Your task to perform on an android device: Clear the cart on costco. Search for razer naga on costco, select the first entry, add it to the cart, then select checkout. Image 0: 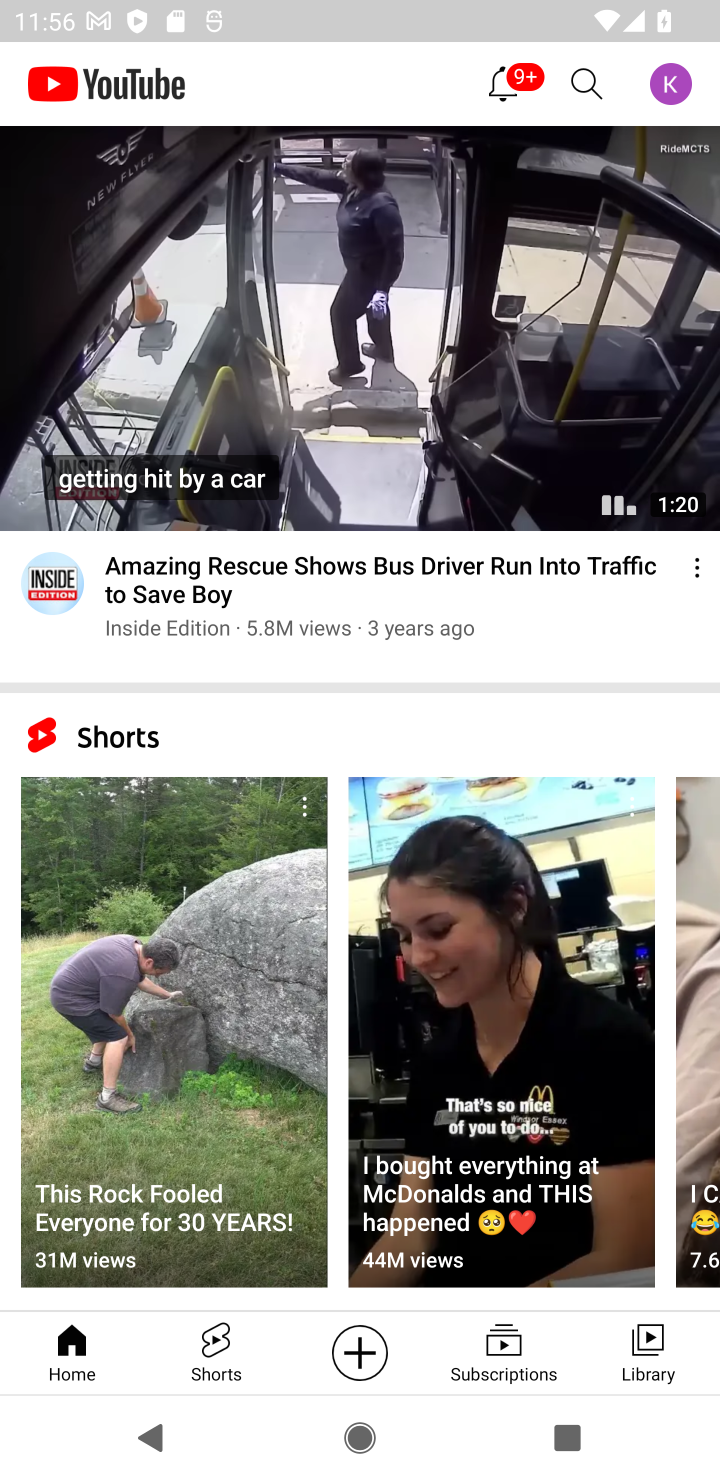
Step 0: press home button
Your task to perform on an android device: Clear the cart on costco. Search for razer naga on costco, select the first entry, add it to the cart, then select checkout. Image 1: 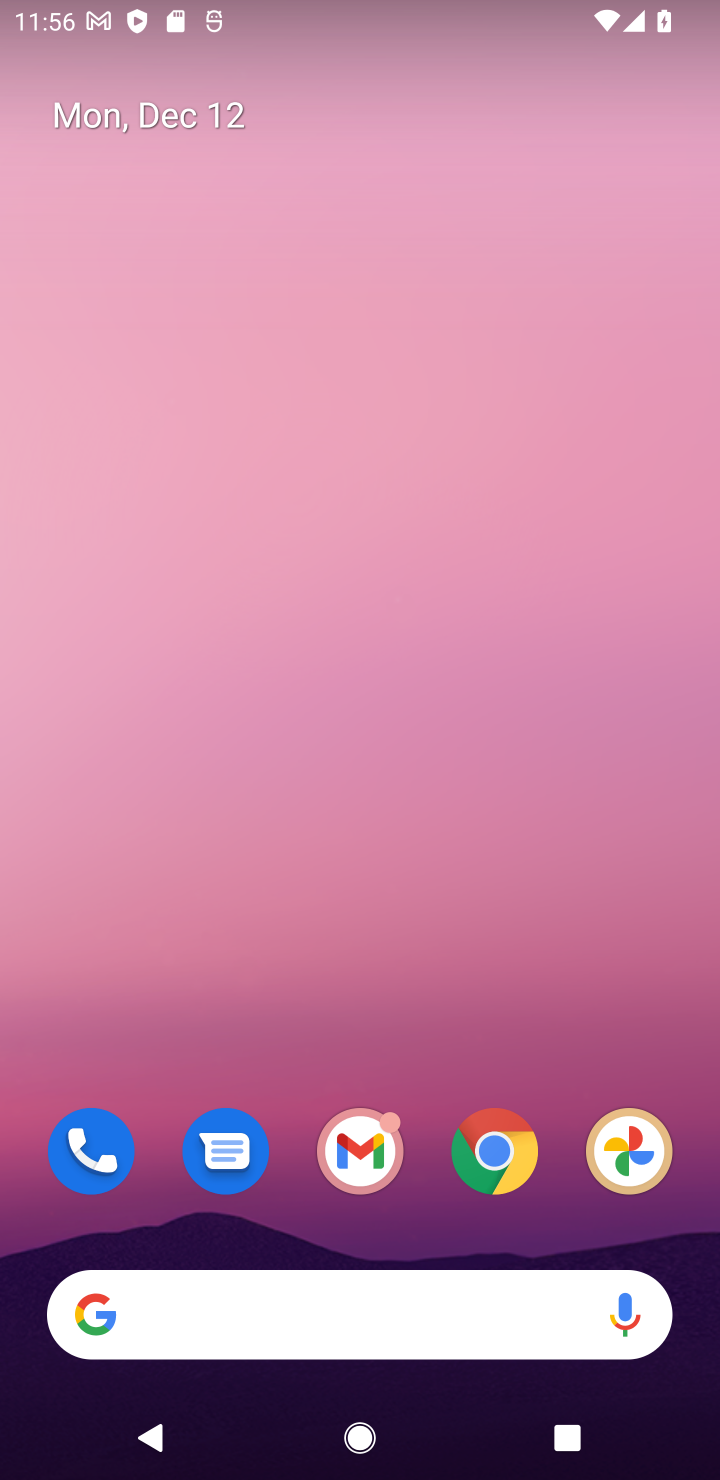
Step 1: drag from (352, 1289) to (384, 17)
Your task to perform on an android device: Clear the cart on costco. Search for razer naga on costco, select the first entry, add it to the cart, then select checkout. Image 2: 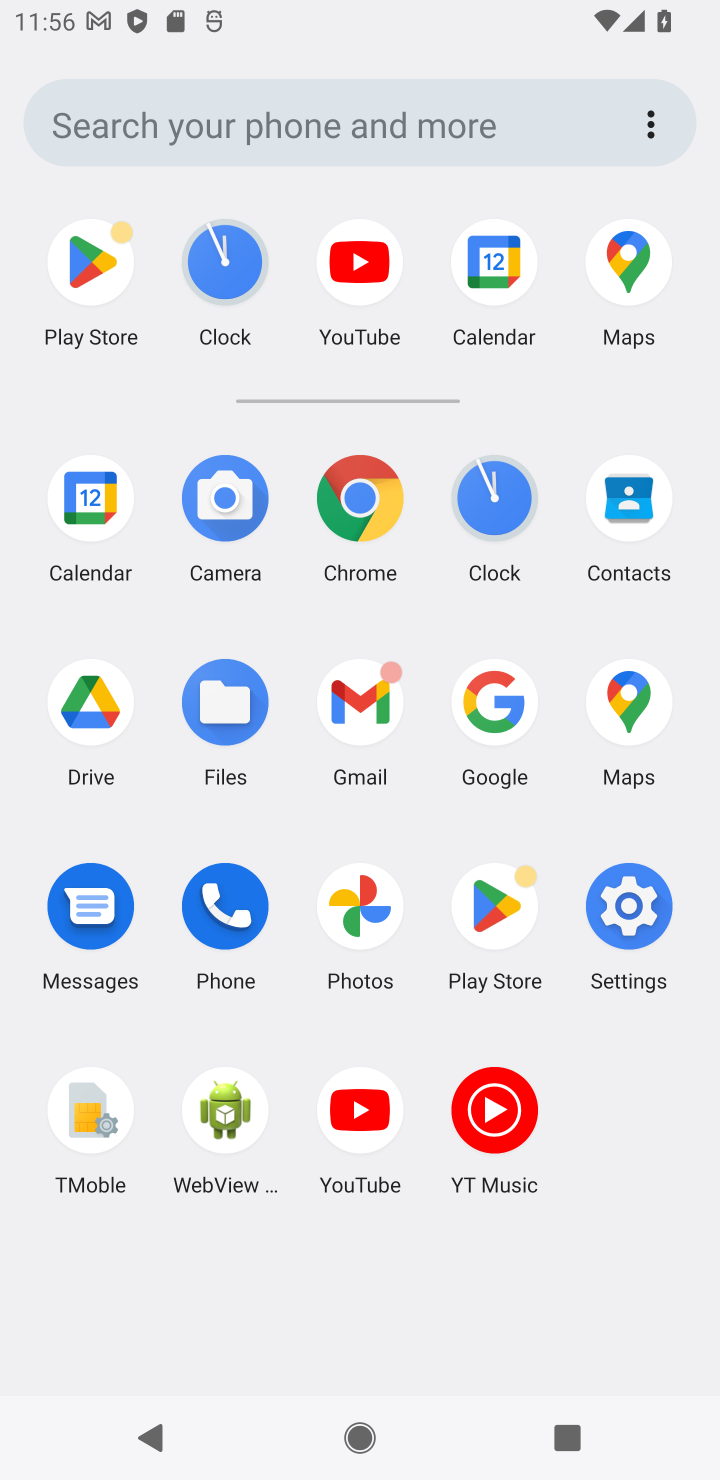
Step 2: click (492, 694)
Your task to perform on an android device: Clear the cart on costco. Search for razer naga on costco, select the first entry, add it to the cart, then select checkout. Image 3: 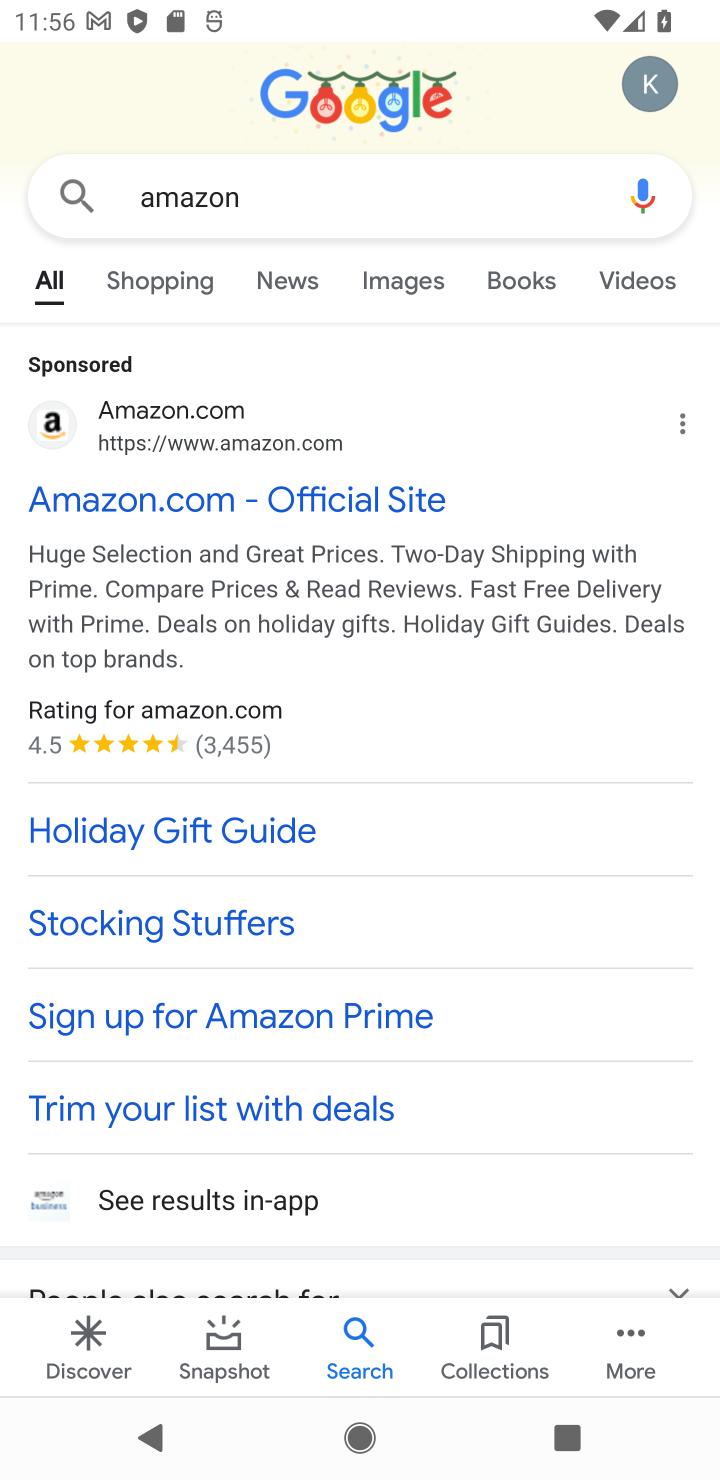
Step 3: click (201, 204)
Your task to perform on an android device: Clear the cart on costco. Search for razer naga on costco, select the first entry, add it to the cart, then select checkout. Image 4: 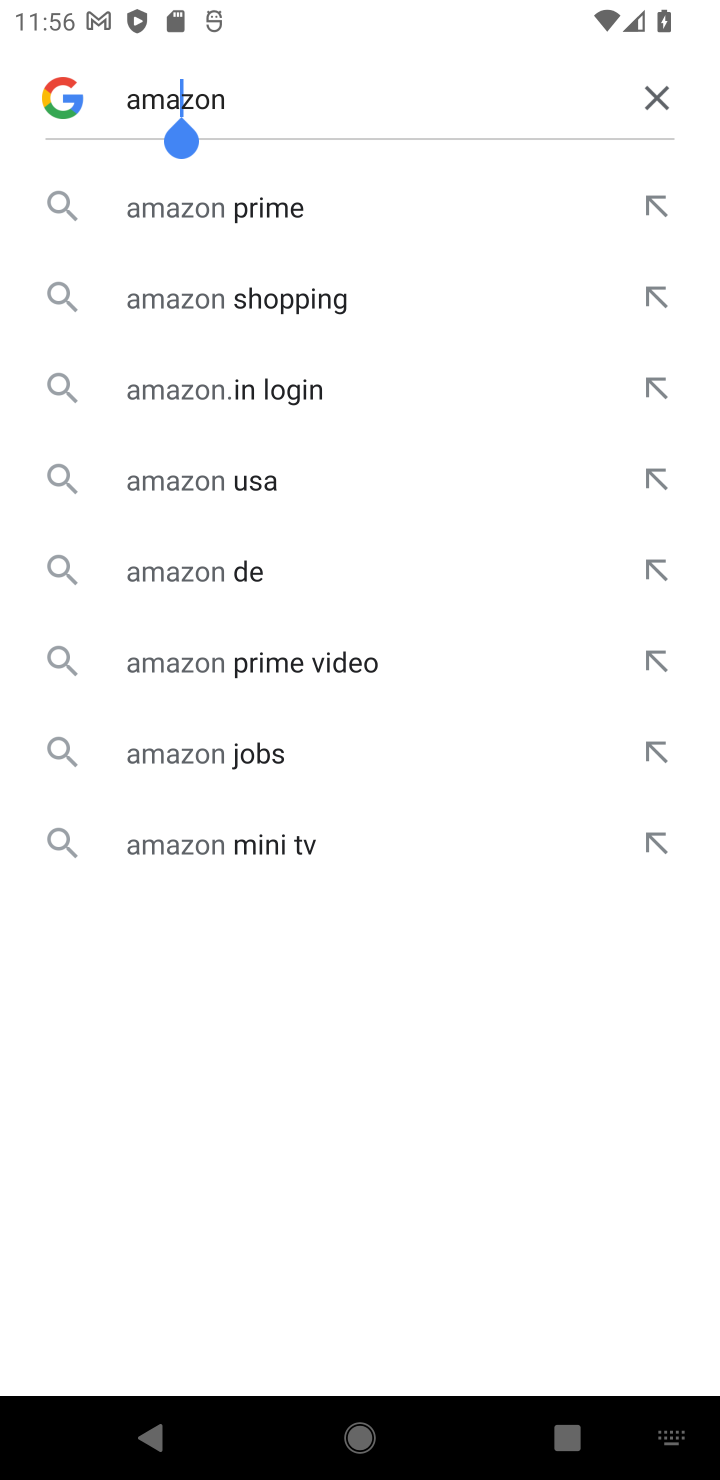
Step 4: click (655, 90)
Your task to perform on an android device: Clear the cart on costco. Search for razer naga on costco, select the first entry, add it to the cart, then select checkout. Image 5: 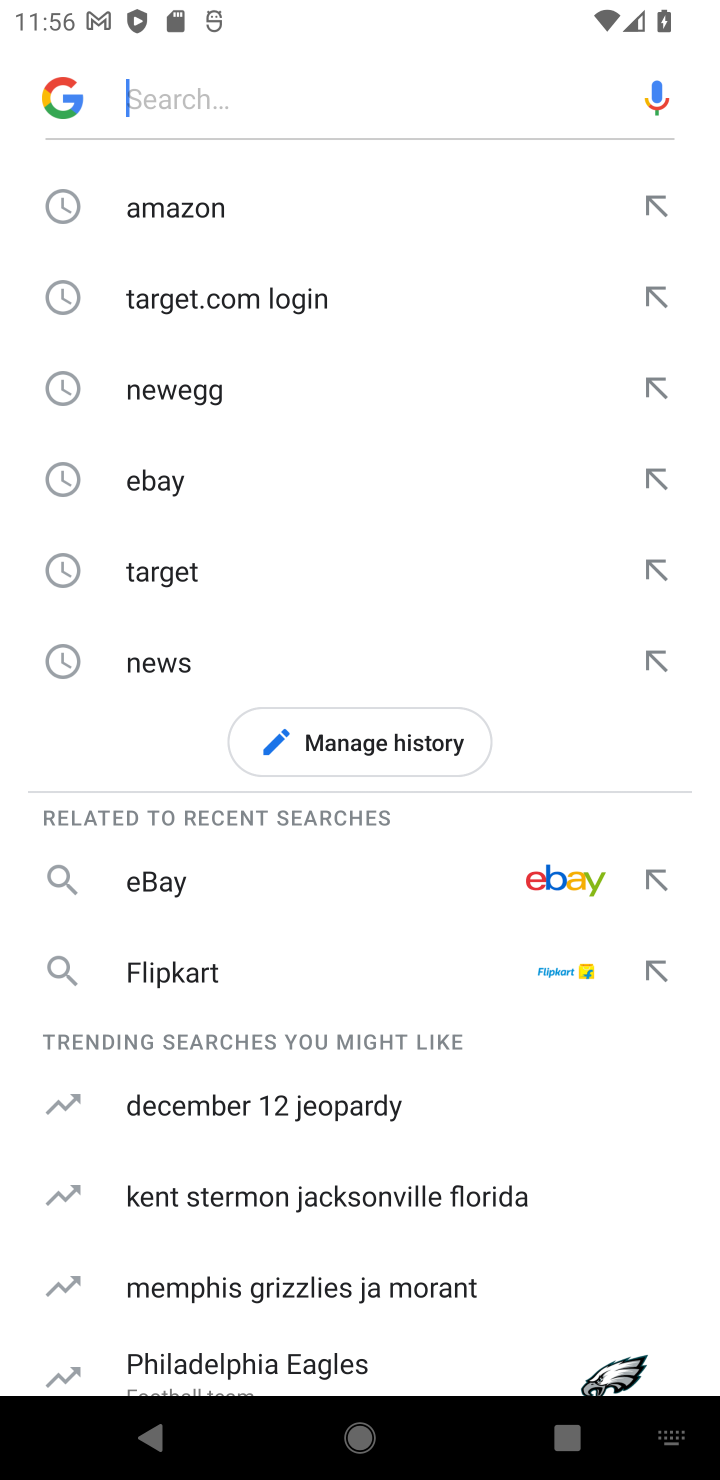
Step 5: drag from (194, 964) to (216, 429)
Your task to perform on an android device: Clear the cart on costco. Search for razer naga on costco, select the first entry, add it to the cart, then select checkout. Image 6: 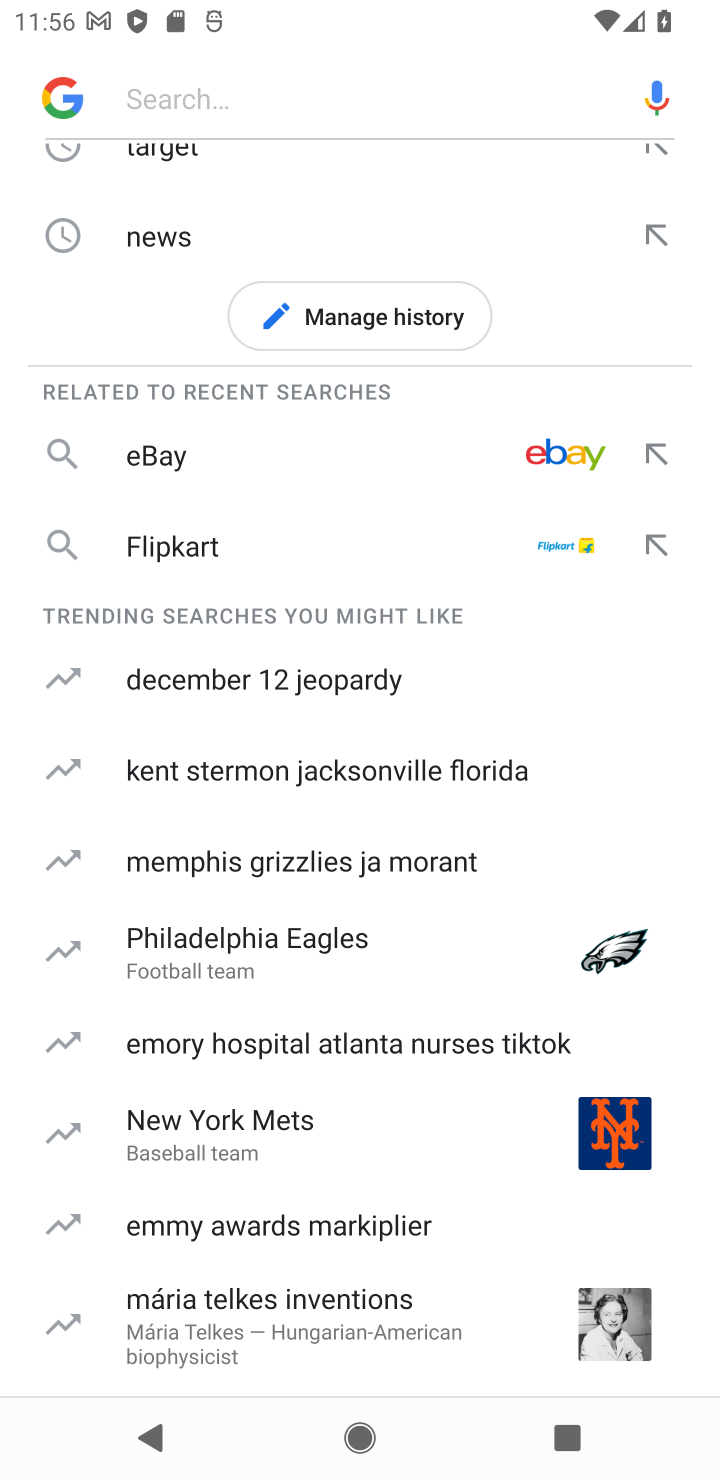
Step 6: drag from (280, 1254) to (357, 429)
Your task to perform on an android device: Clear the cart on costco. Search for razer naga on costco, select the first entry, add it to the cart, then select checkout. Image 7: 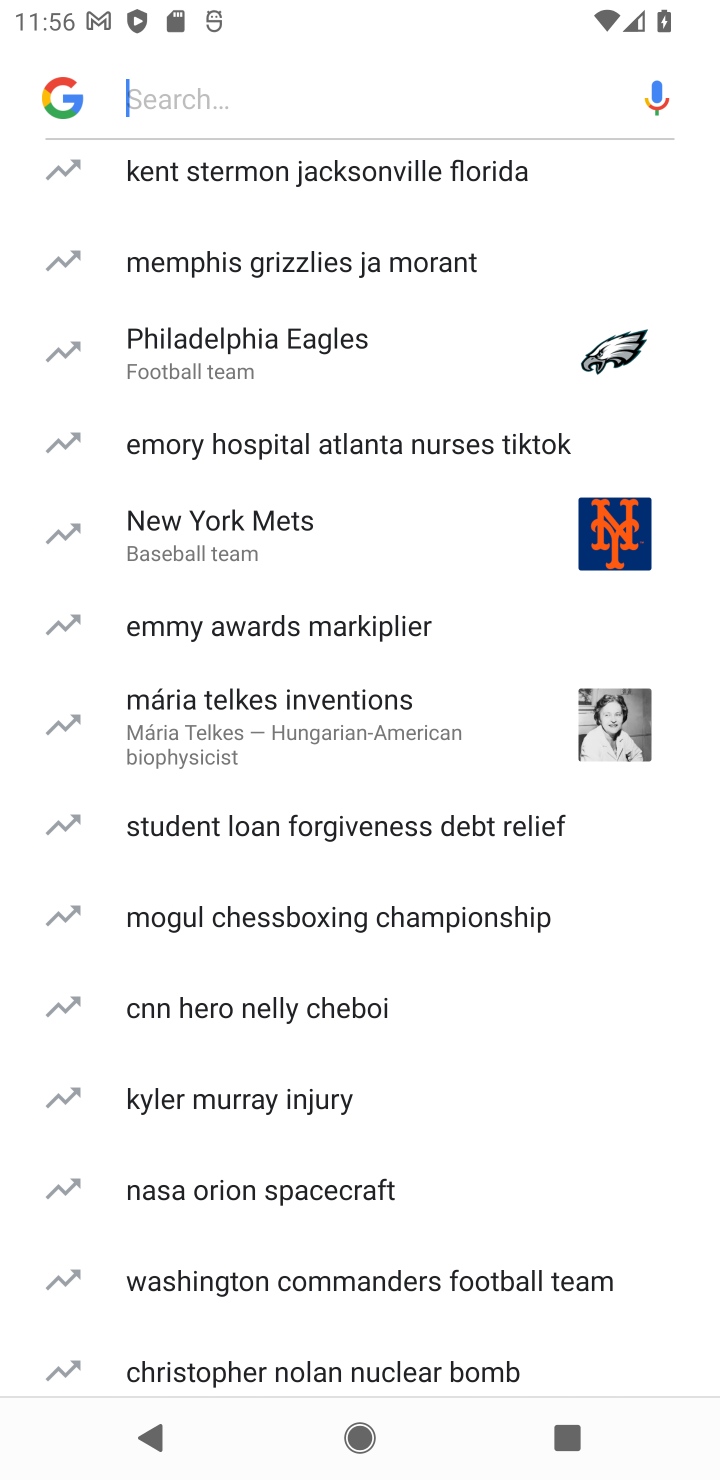
Step 7: drag from (331, 392) to (255, 1250)
Your task to perform on an android device: Clear the cart on costco. Search for razer naga on costco, select the first entry, add it to the cart, then select checkout. Image 8: 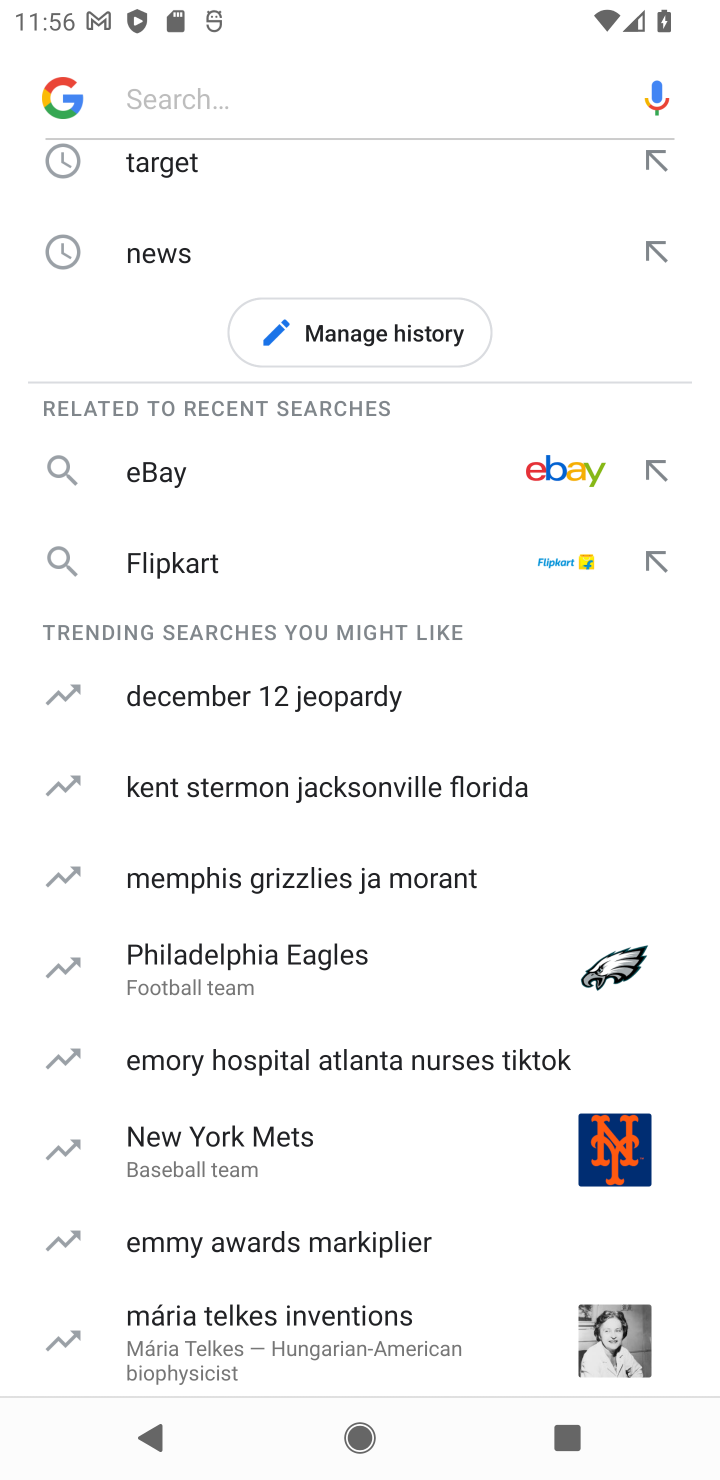
Step 8: drag from (312, 220) to (271, 1140)
Your task to perform on an android device: Clear the cart on costco. Search for razer naga on costco, select the first entry, add it to the cart, then select checkout. Image 9: 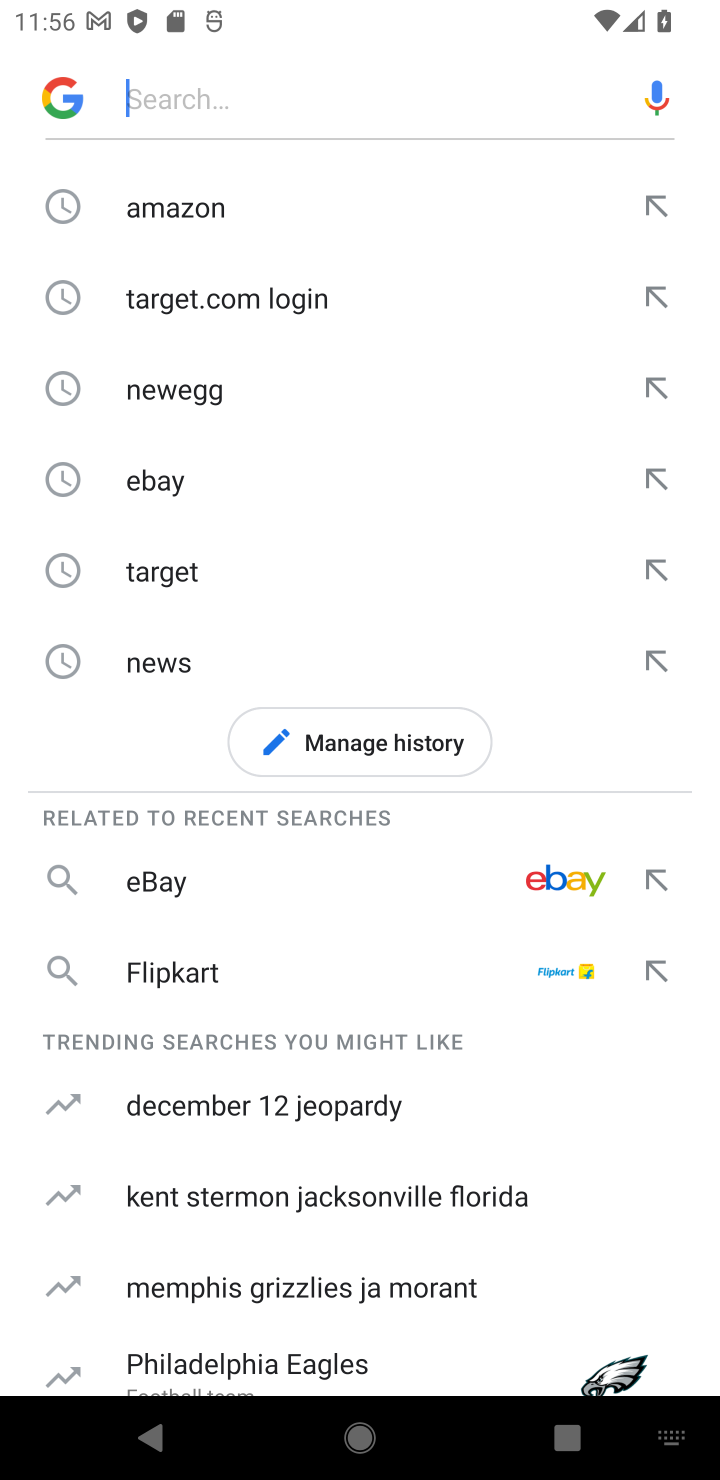
Step 9: click (379, 748)
Your task to perform on an android device: Clear the cart on costco. Search for razer naga on costco, select the first entry, add it to the cart, then select checkout. Image 10: 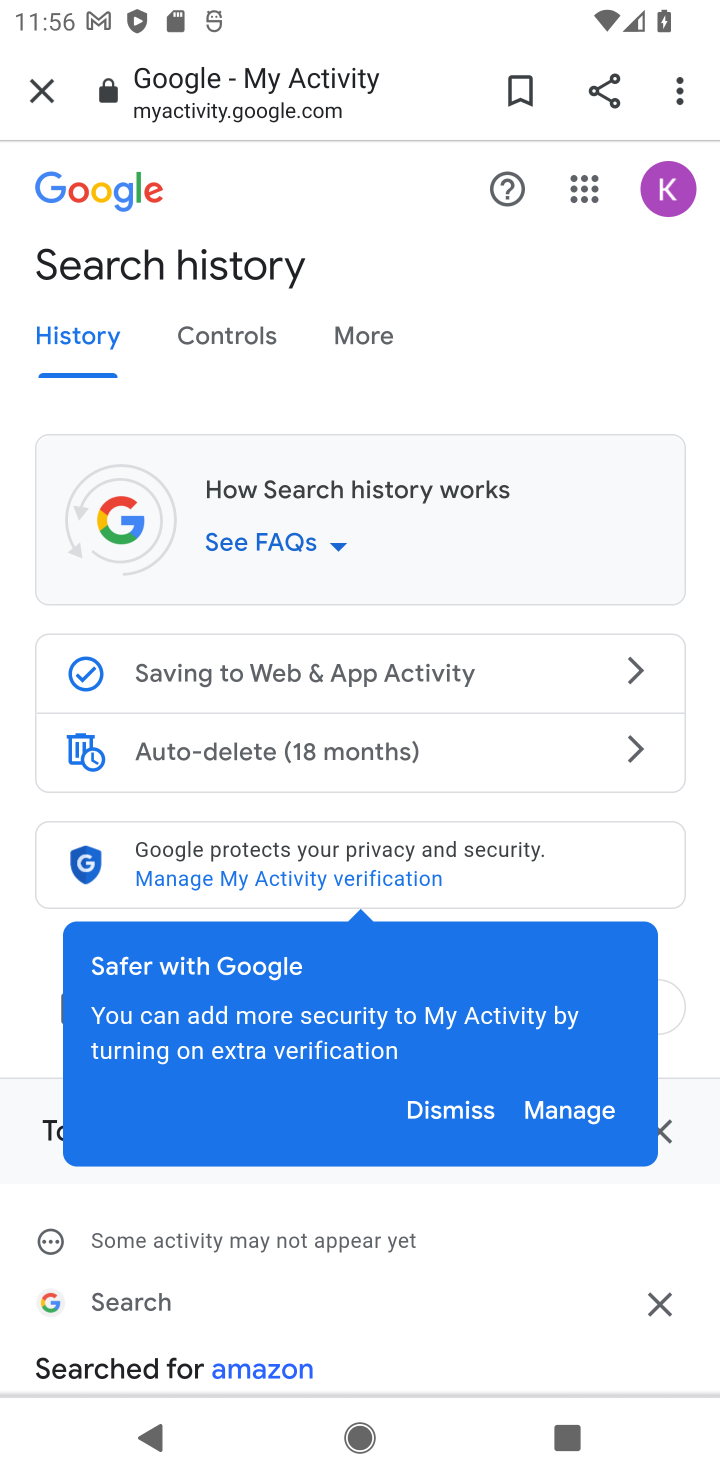
Step 10: click (43, 92)
Your task to perform on an android device: Clear the cart on costco. Search for razer naga on costco, select the first entry, add it to the cart, then select checkout. Image 11: 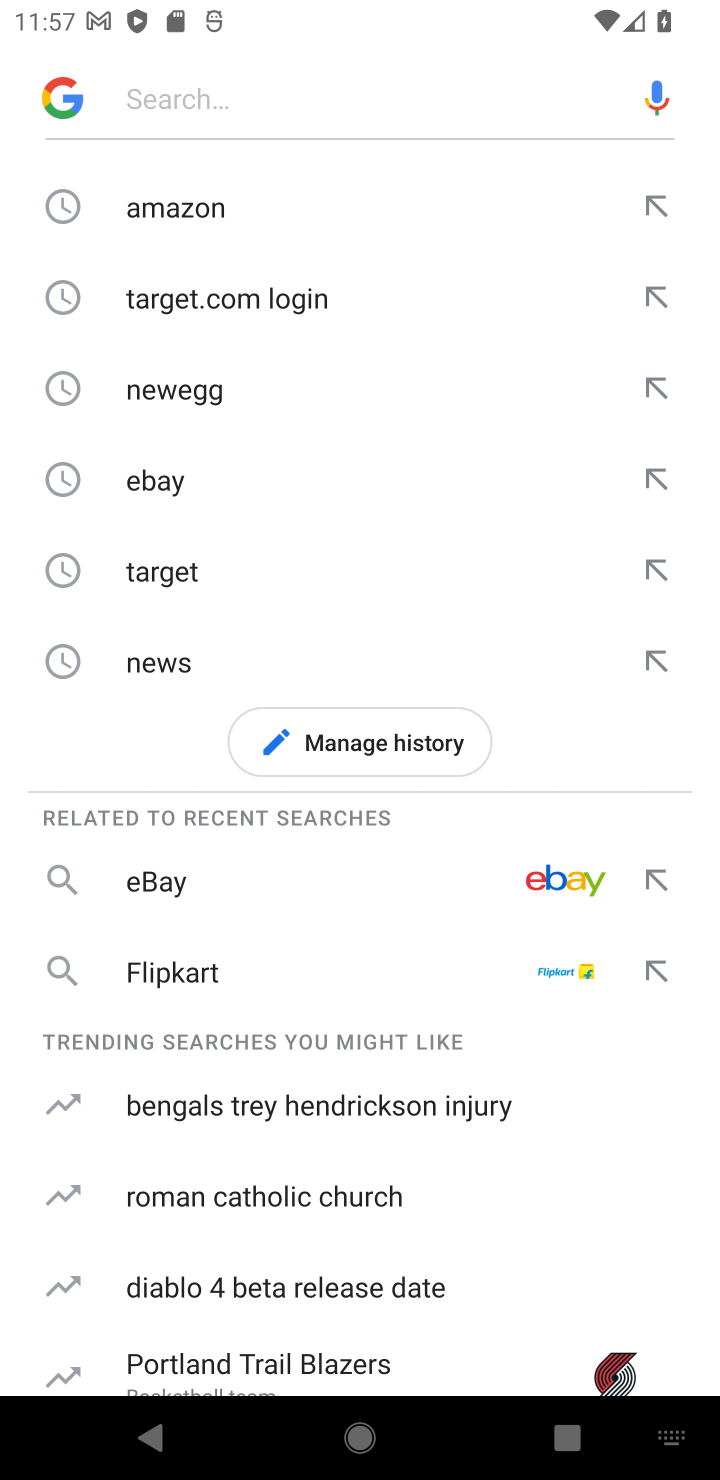
Step 11: type "costco"
Your task to perform on an android device: Clear the cart on costco. Search for razer naga on costco, select the first entry, add it to the cart, then select checkout. Image 12: 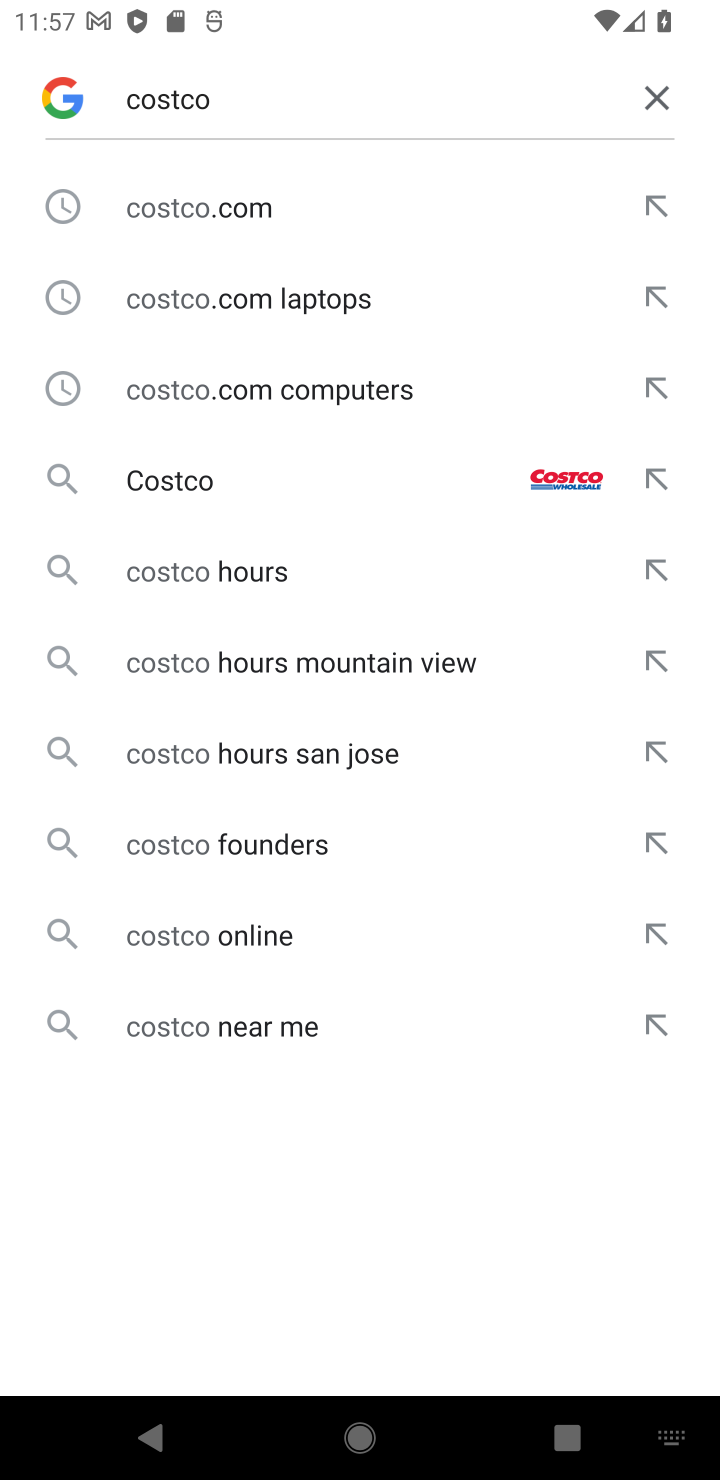
Step 12: click (262, 202)
Your task to perform on an android device: Clear the cart on costco. Search for razer naga on costco, select the first entry, add it to the cart, then select checkout. Image 13: 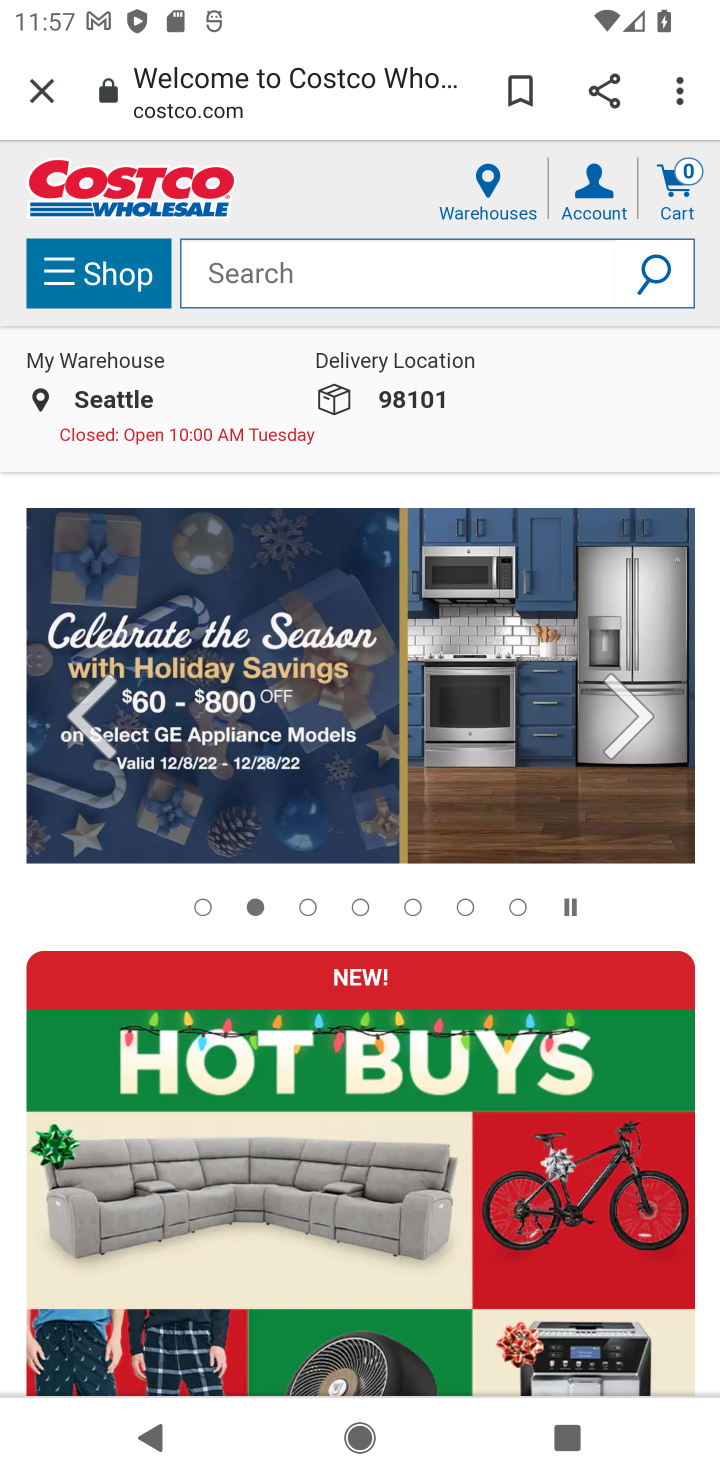
Step 13: click (265, 276)
Your task to perform on an android device: Clear the cart on costco. Search for razer naga on costco, select the first entry, add it to the cart, then select checkout. Image 14: 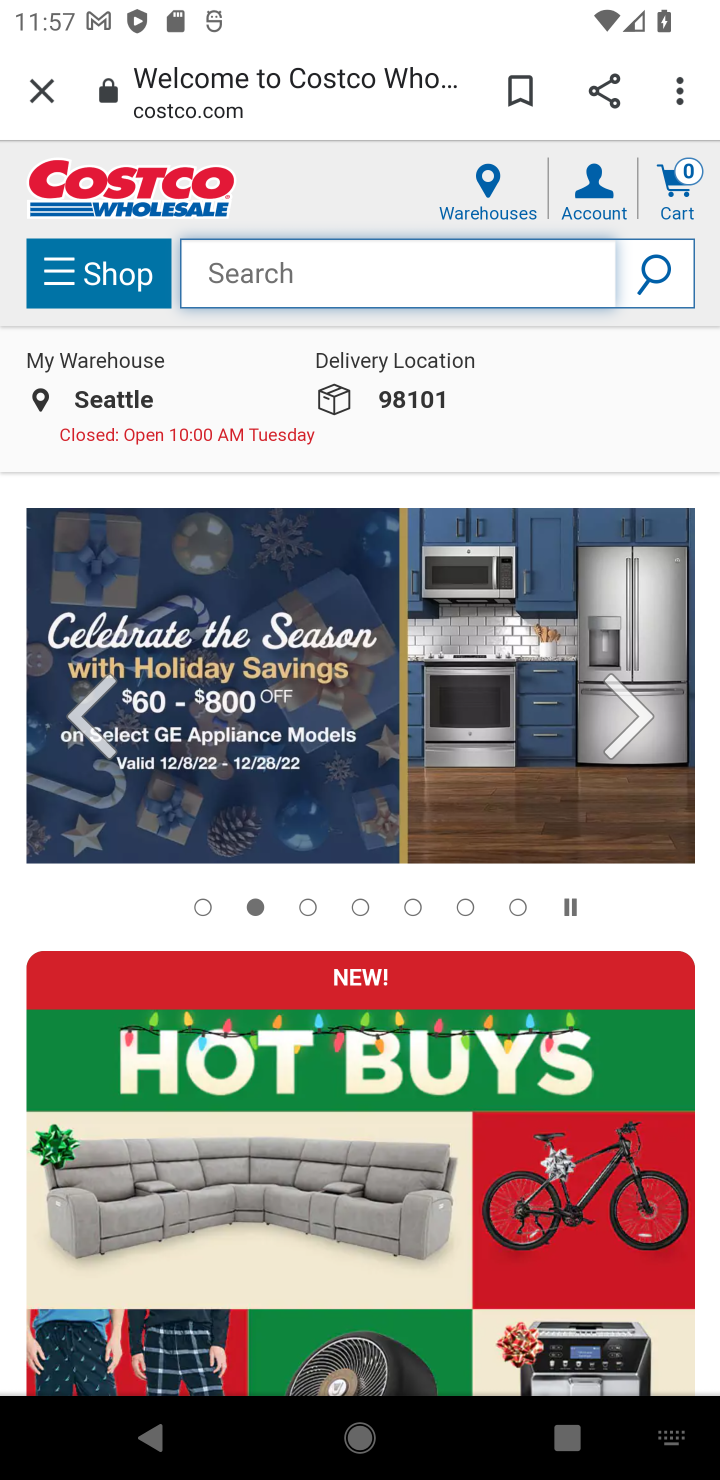
Step 14: type "razer naga"
Your task to perform on an android device: Clear the cart on costco. Search for razer naga on costco, select the first entry, add it to the cart, then select checkout. Image 15: 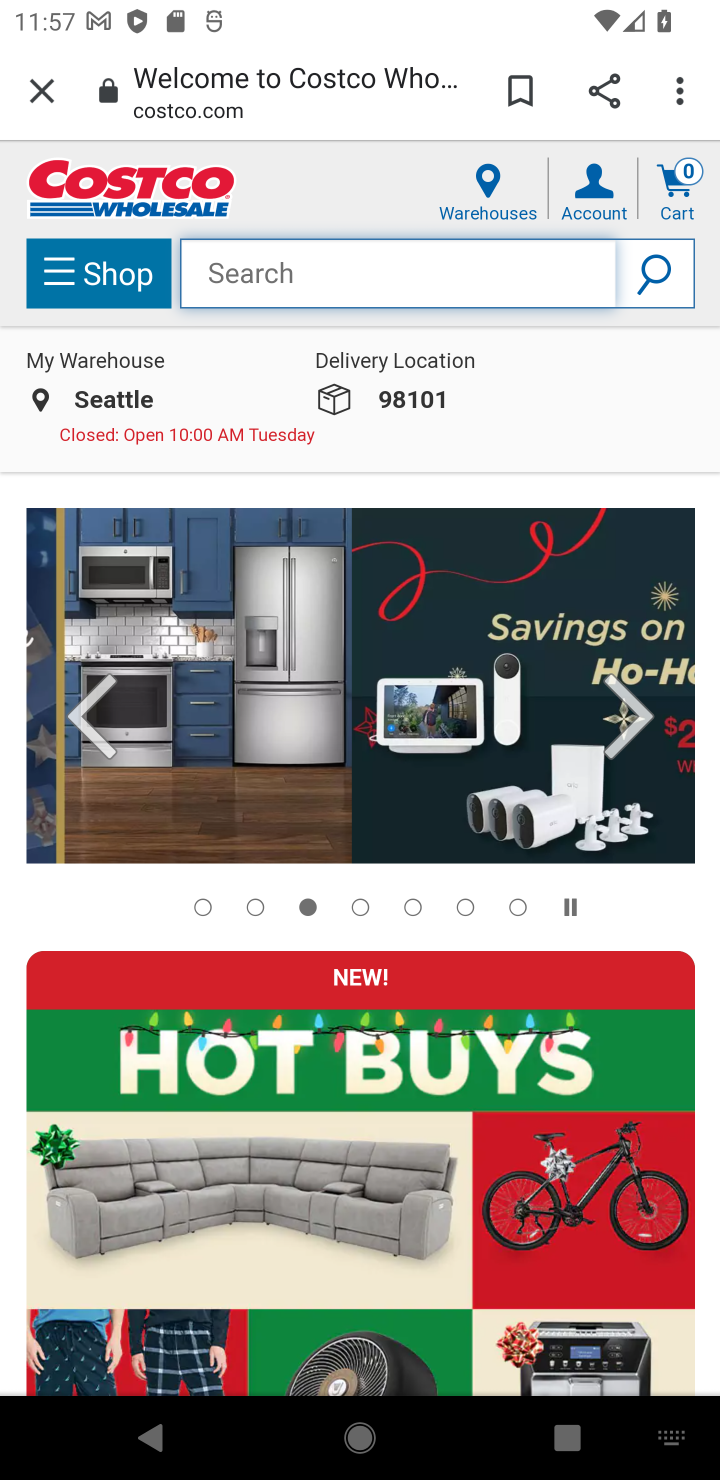
Step 15: click (668, 272)
Your task to perform on an android device: Clear the cart on costco. Search for razer naga on costco, select the first entry, add it to the cart, then select checkout. Image 16: 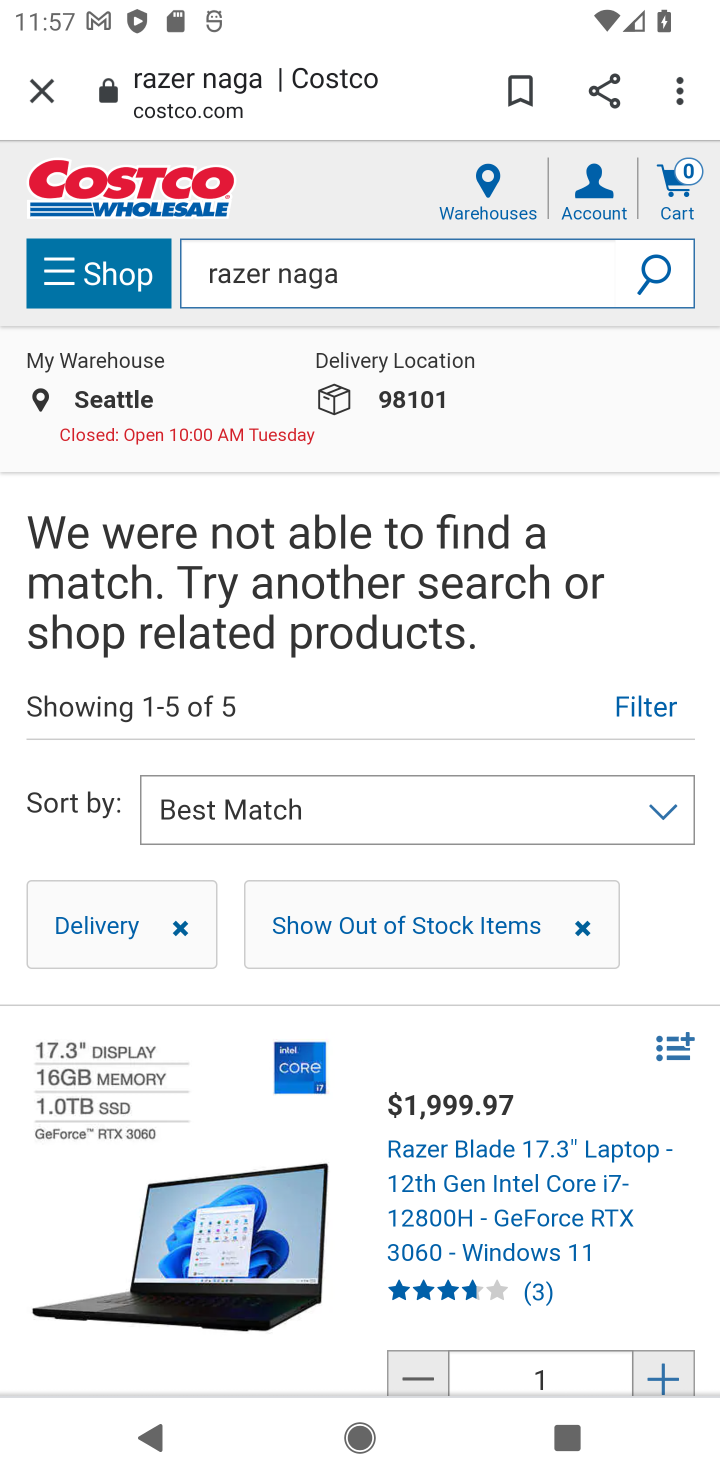
Step 16: drag from (468, 1059) to (474, 615)
Your task to perform on an android device: Clear the cart on costco. Search for razer naga on costco, select the first entry, add it to the cart, then select checkout. Image 17: 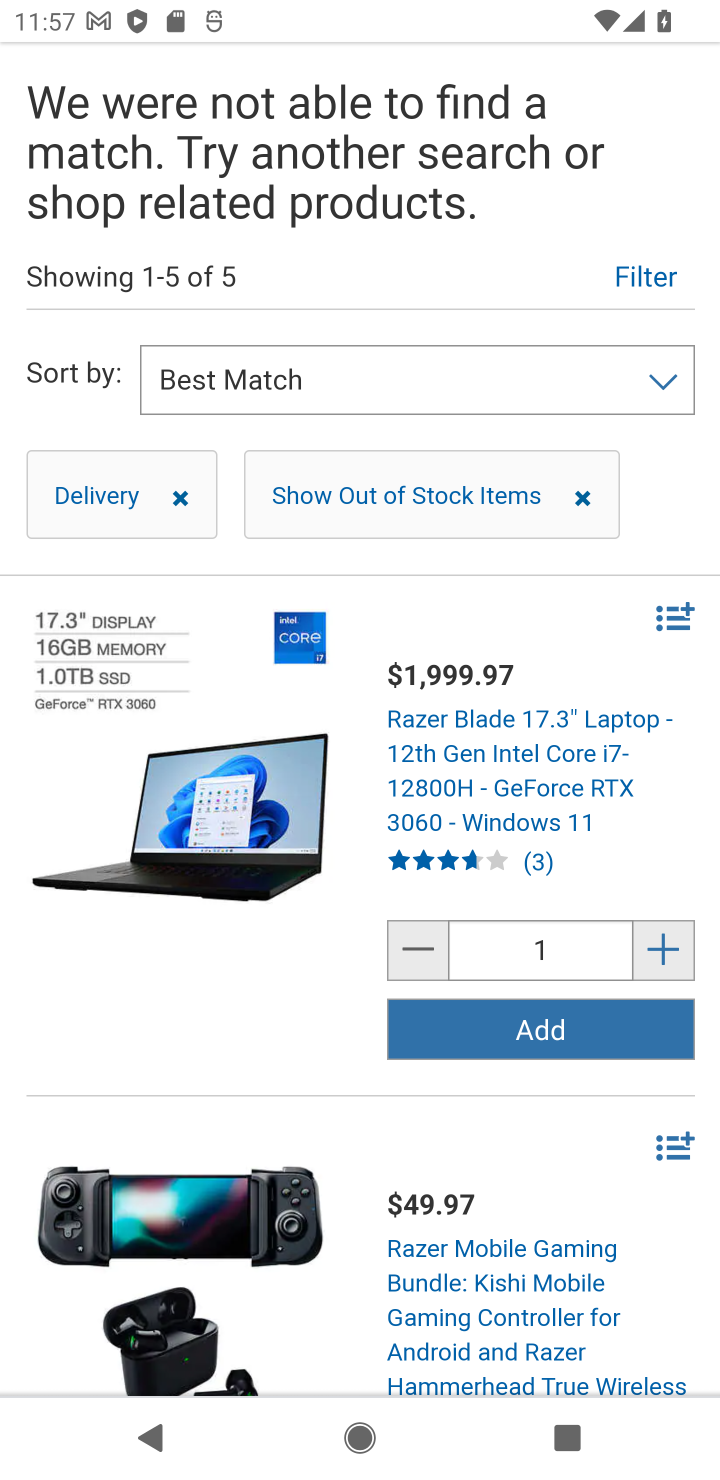
Step 17: click (544, 1027)
Your task to perform on an android device: Clear the cart on costco. Search for razer naga on costco, select the first entry, add it to the cart, then select checkout. Image 18: 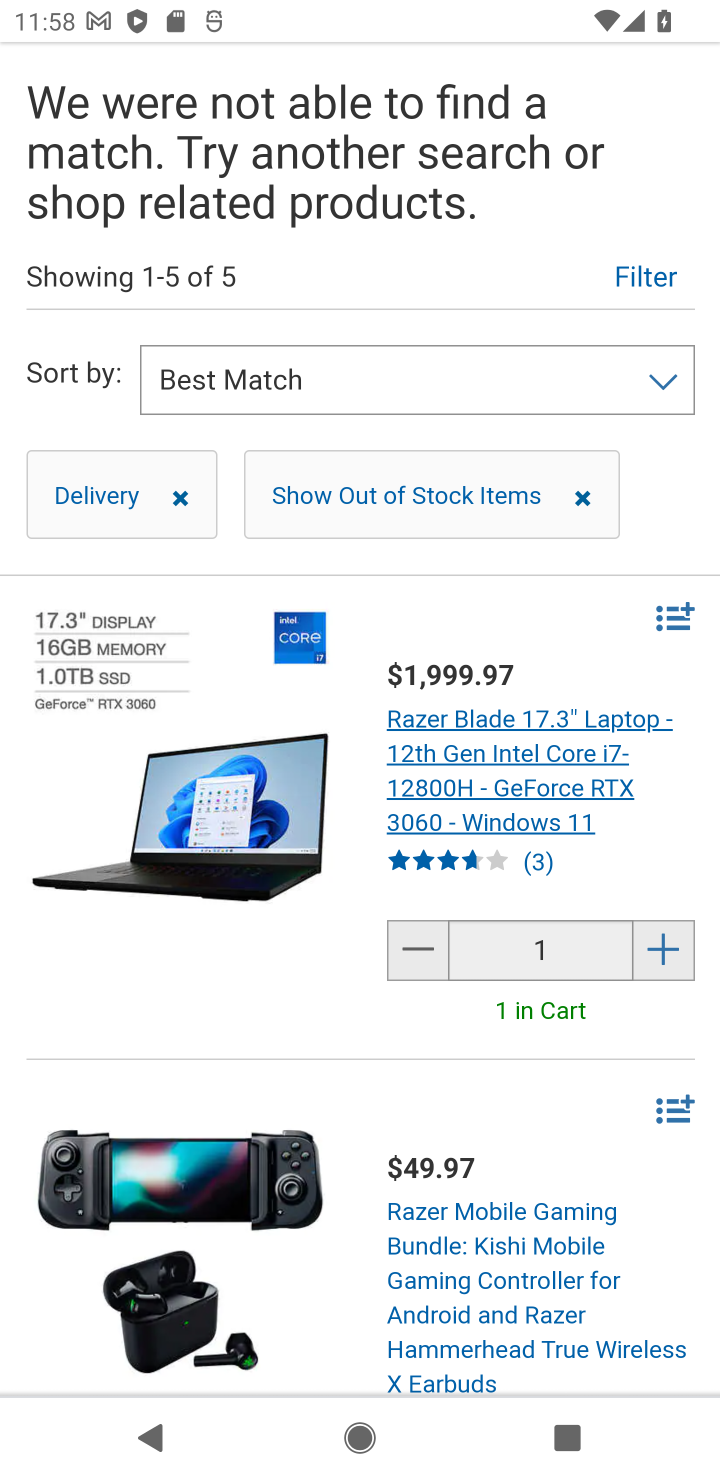
Step 18: drag from (496, 252) to (494, 914)
Your task to perform on an android device: Clear the cart on costco. Search for razer naga on costco, select the first entry, add it to the cart, then select checkout. Image 19: 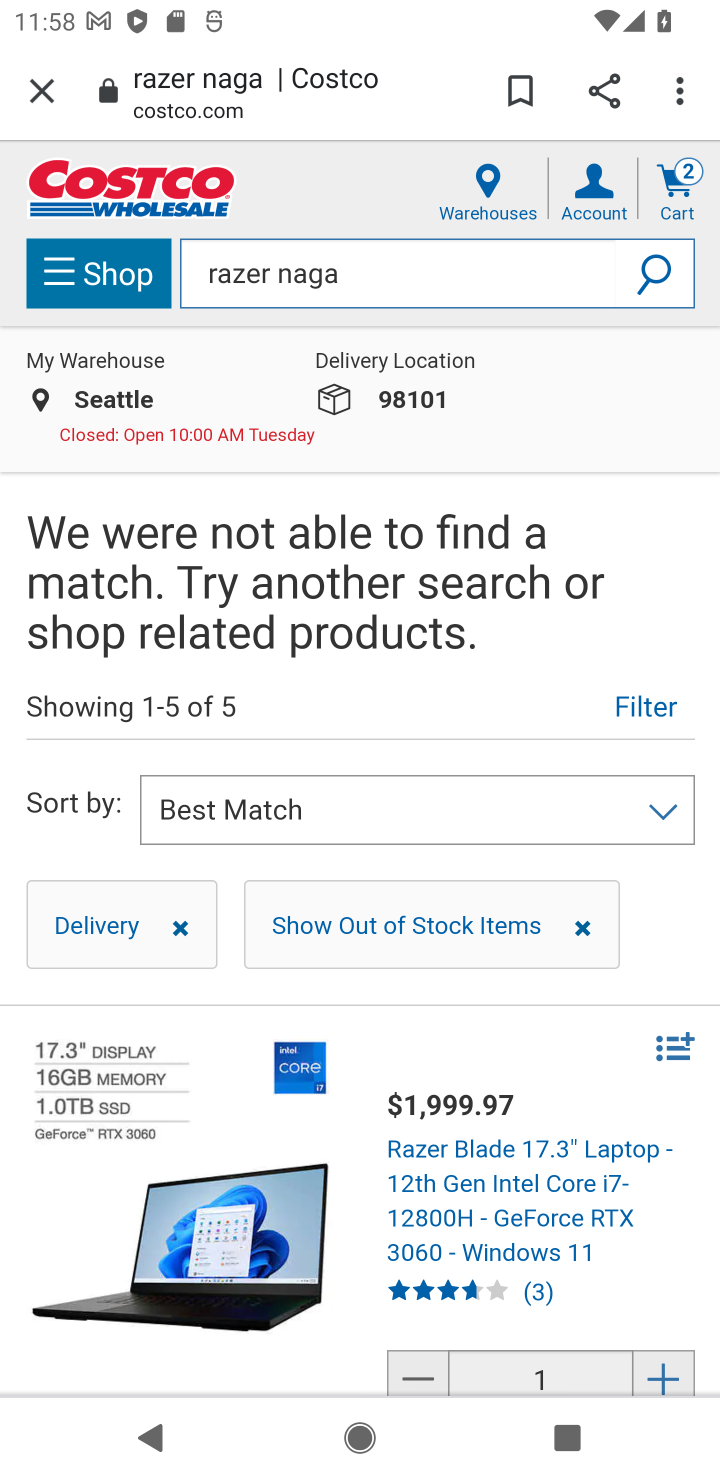
Step 19: click (687, 190)
Your task to perform on an android device: Clear the cart on costco. Search for razer naga on costco, select the first entry, add it to the cart, then select checkout. Image 20: 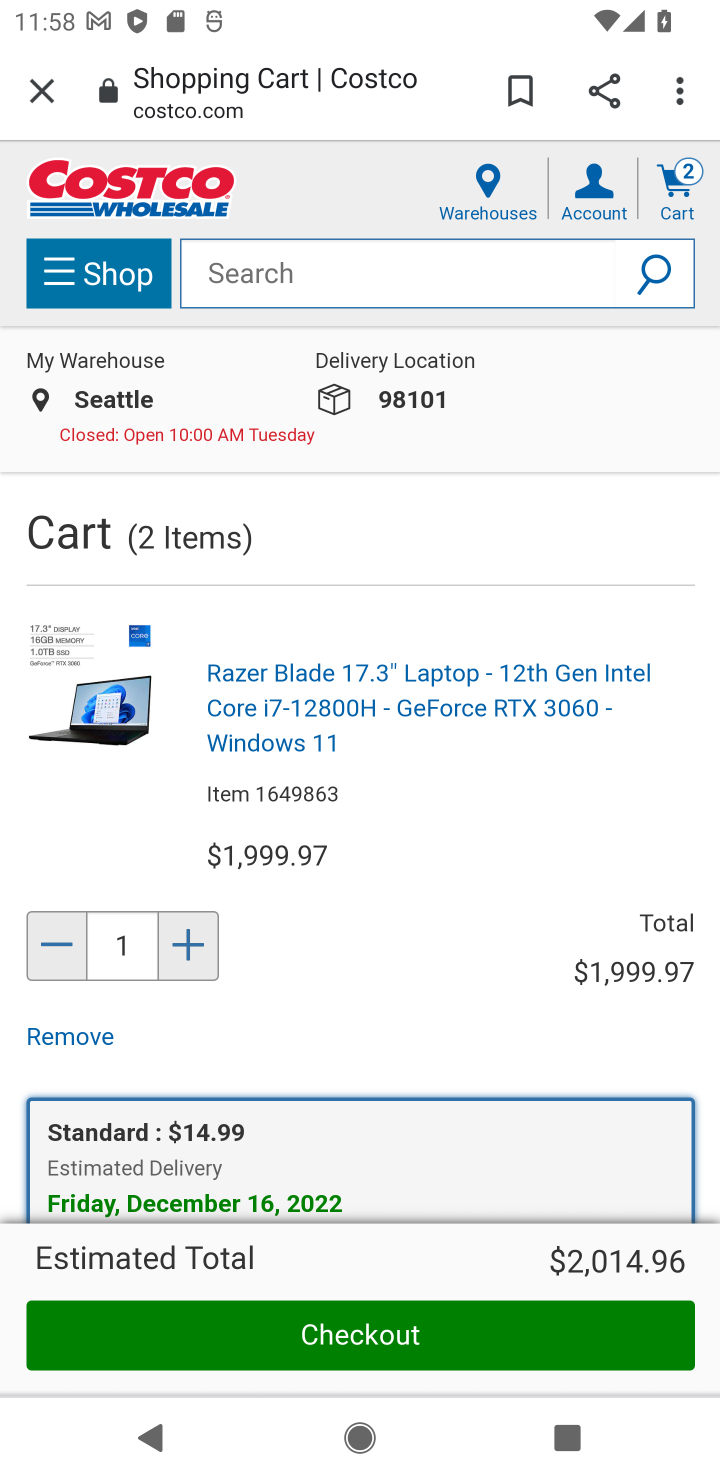
Step 20: click (376, 1339)
Your task to perform on an android device: Clear the cart on costco. Search for razer naga on costco, select the first entry, add it to the cart, then select checkout. Image 21: 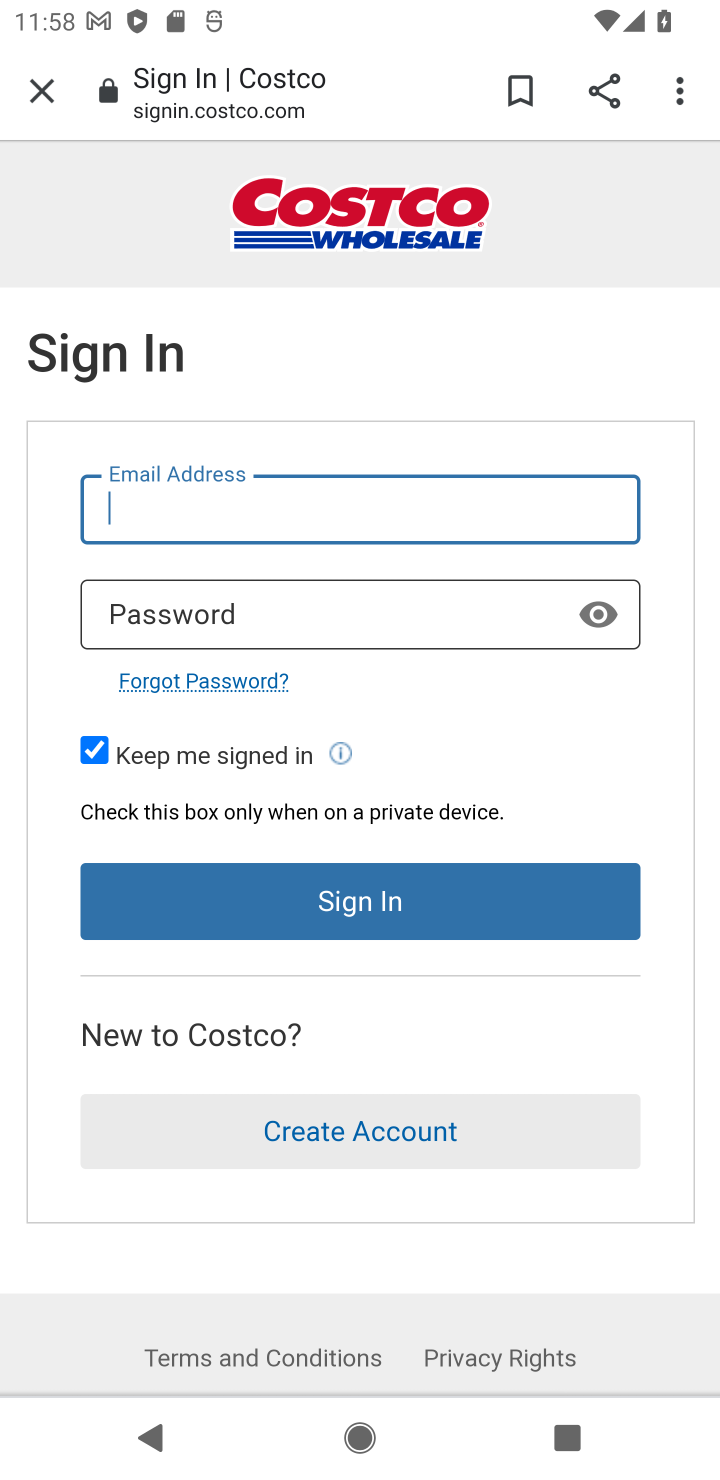
Step 21: task complete